Your task to perform on an android device: turn on notifications settings in the gmail app Image 0: 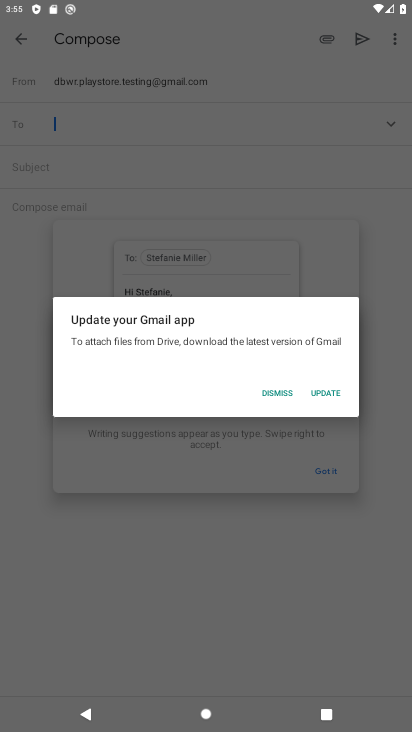
Step 0: press home button
Your task to perform on an android device: turn on notifications settings in the gmail app Image 1: 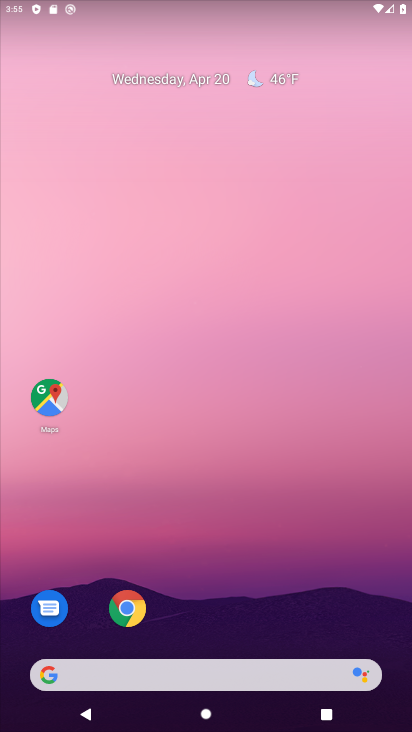
Step 1: drag from (203, 620) to (271, 19)
Your task to perform on an android device: turn on notifications settings in the gmail app Image 2: 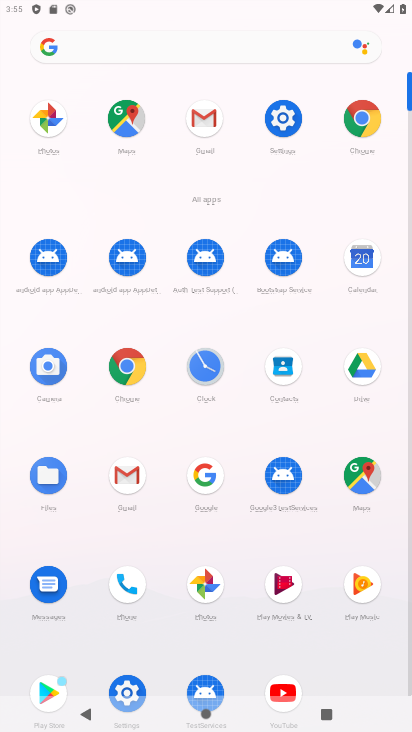
Step 2: click (123, 466)
Your task to perform on an android device: turn on notifications settings in the gmail app Image 3: 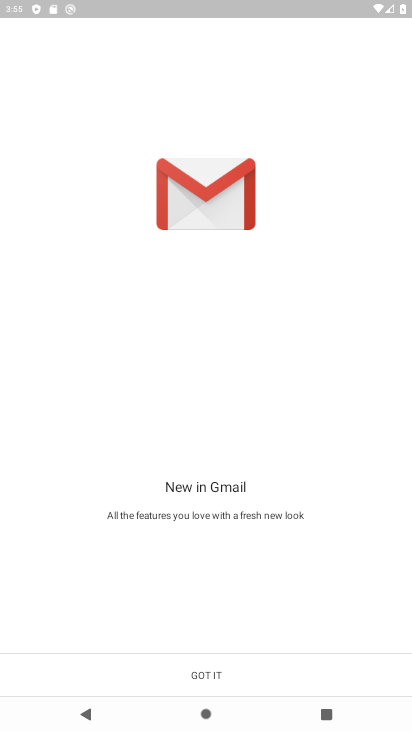
Step 3: click (203, 669)
Your task to perform on an android device: turn on notifications settings in the gmail app Image 4: 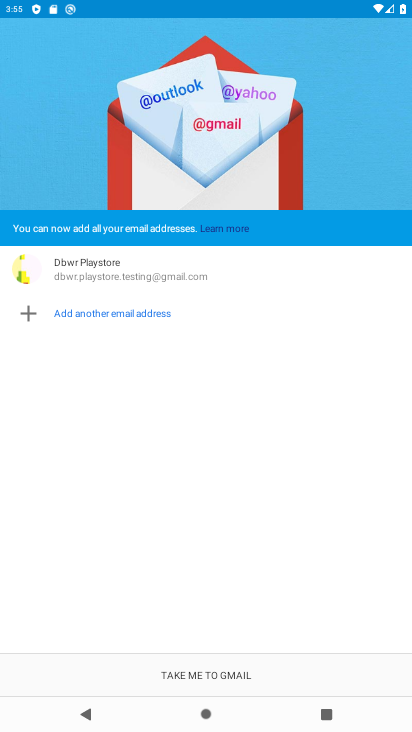
Step 4: click (203, 669)
Your task to perform on an android device: turn on notifications settings in the gmail app Image 5: 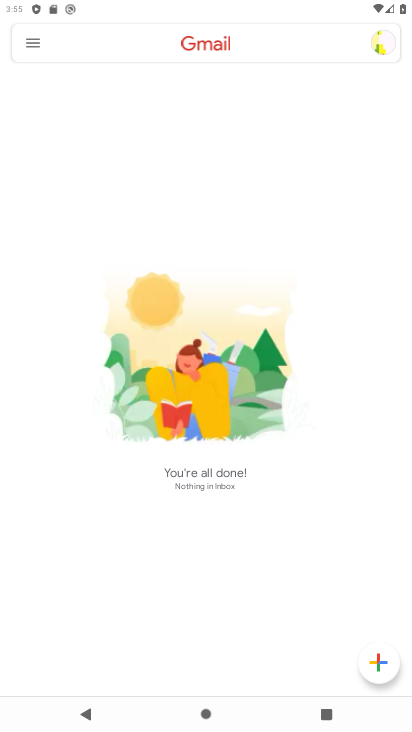
Step 5: click (18, 29)
Your task to perform on an android device: turn on notifications settings in the gmail app Image 6: 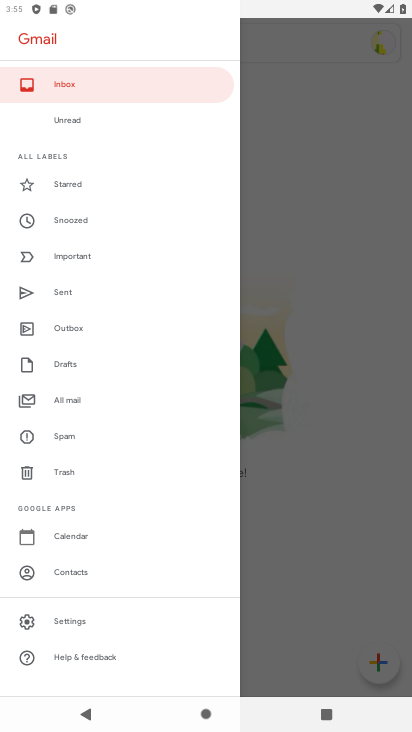
Step 6: click (40, 619)
Your task to perform on an android device: turn on notifications settings in the gmail app Image 7: 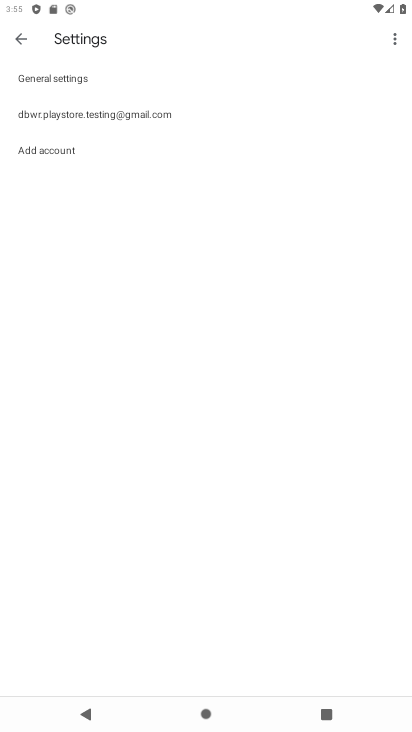
Step 7: click (85, 71)
Your task to perform on an android device: turn on notifications settings in the gmail app Image 8: 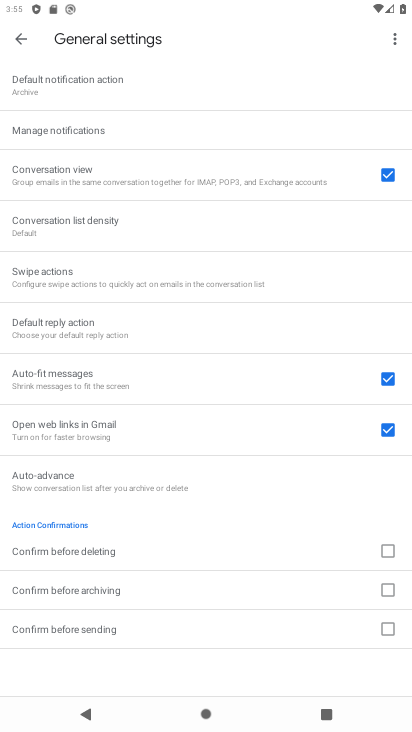
Step 8: click (101, 133)
Your task to perform on an android device: turn on notifications settings in the gmail app Image 9: 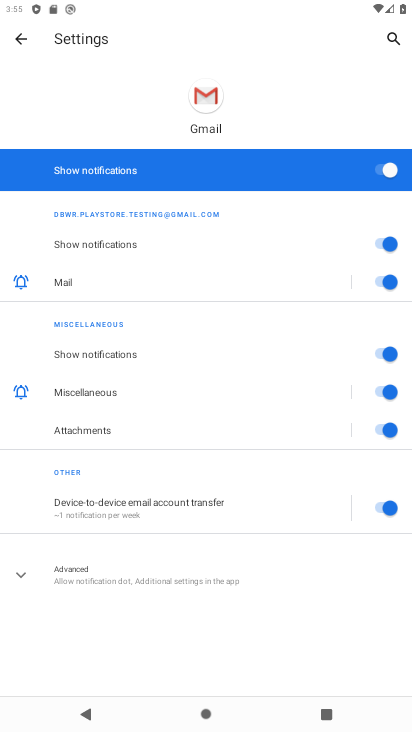
Step 9: task complete